Your task to perform on an android device: turn on data saver in the chrome app Image 0: 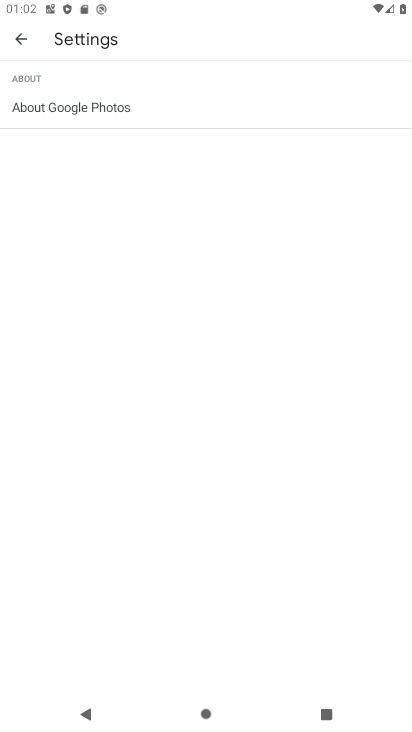
Step 0: press home button
Your task to perform on an android device: turn on data saver in the chrome app Image 1: 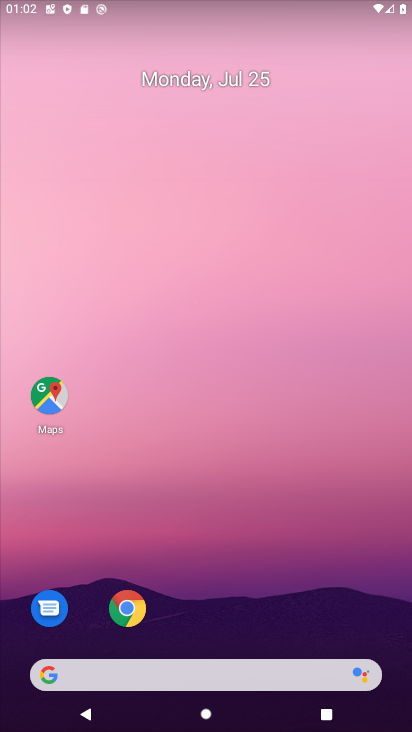
Step 1: click (144, 95)
Your task to perform on an android device: turn on data saver in the chrome app Image 2: 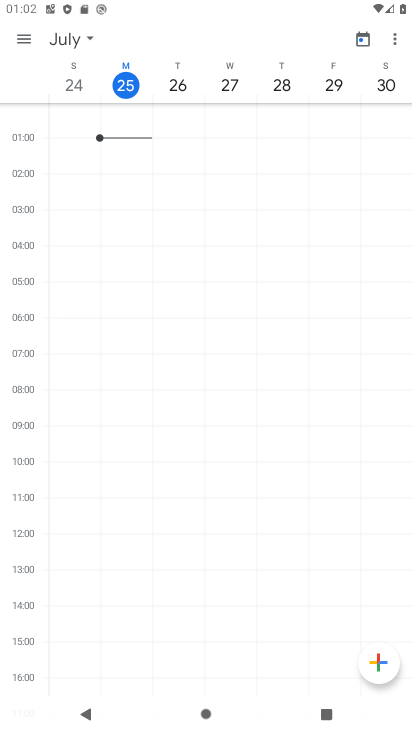
Step 2: press home button
Your task to perform on an android device: turn on data saver in the chrome app Image 3: 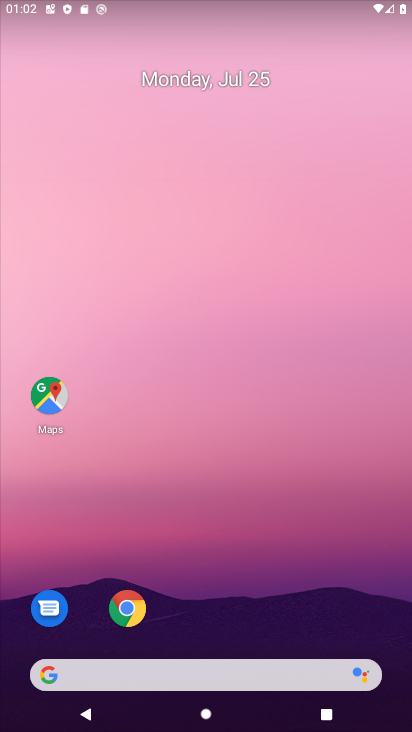
Step 3: drag from (212, 628) to (1, 428)
Your task to perform on an android device: turn on data saver in the chrome app Image 4: 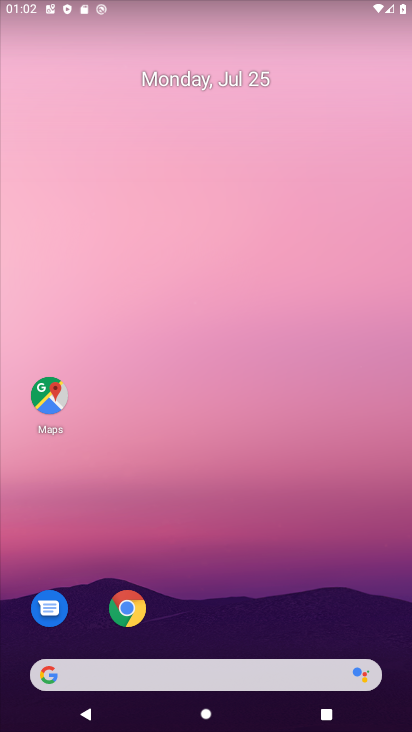
Step 4: click (117, 383)
Your task to perform on an android device: turn on data saver in the chrome app Image 5: 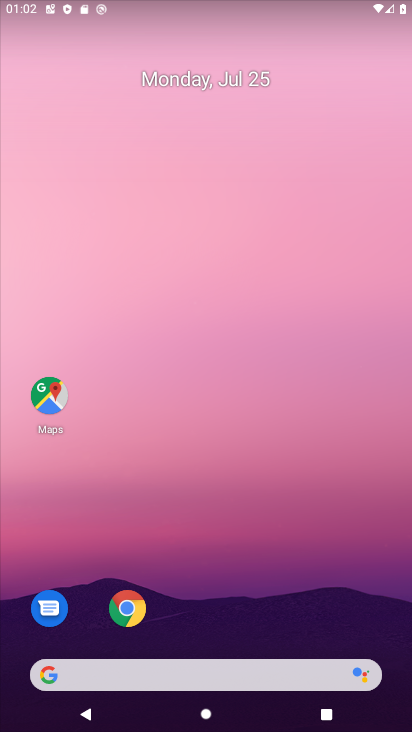
Step 5: drag from (222, 583) to (220, 108)
Your task to perform on an android device: turn on data saver in the chrome app Image 6: 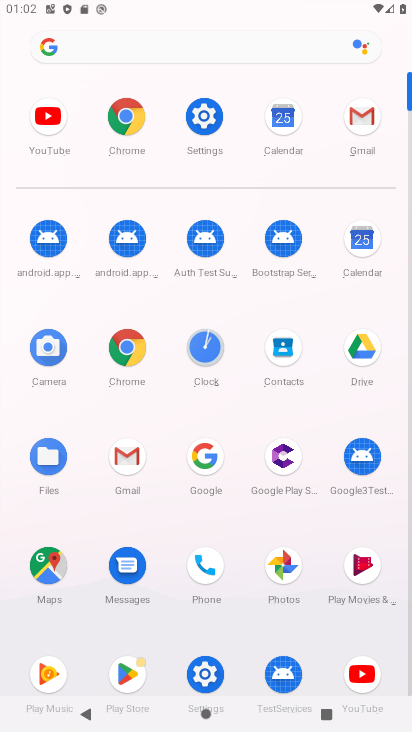
Step 6: click (119, 360)
Your task to perform on an android device: turn on data saver in the chrome app Image 7: 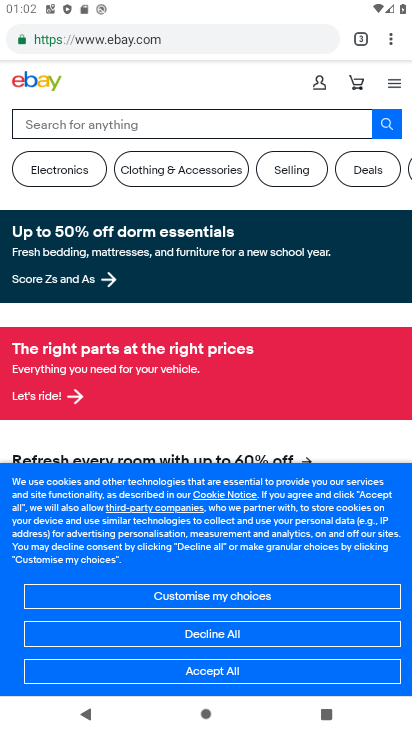
Step 7: click (392, 42)
Your task to perform on an android device: turn on data saver in the chrome app Image 8: 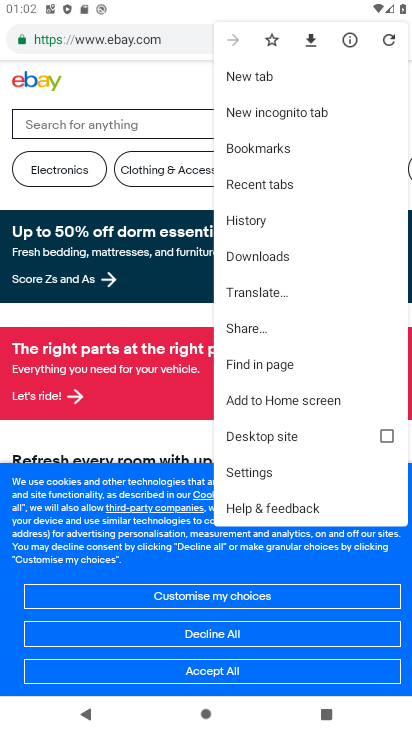
Step 8: click (278, 468)
Your task to perform on an android device: turn on data saver in the chrome app Image 9: 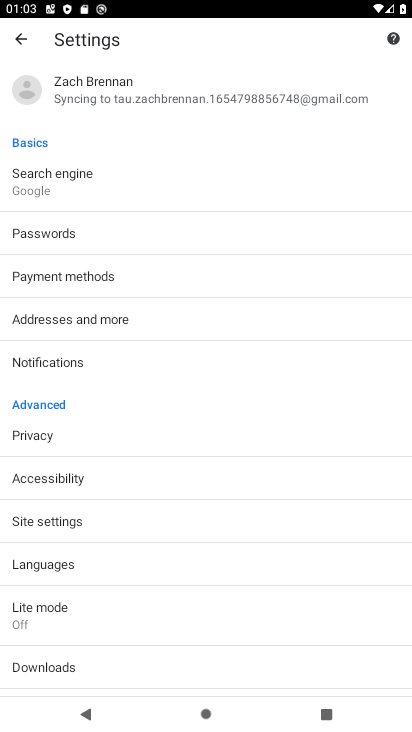
Step 9: drag from (248, 585) to (196, 124)
Your task to perform on an android device: turn on data saver in the chrome app Image 10: 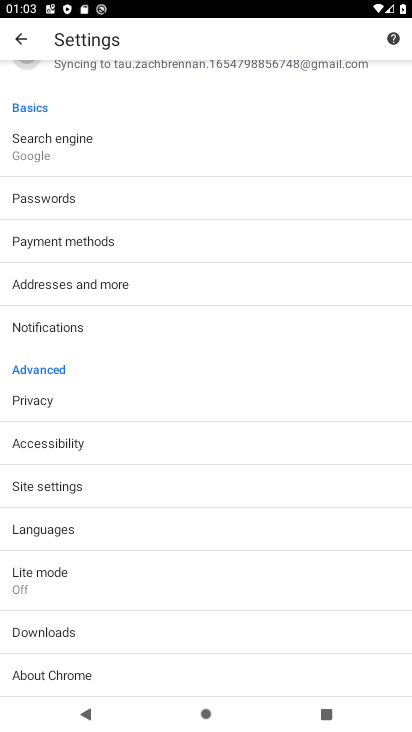
Step 10: click (49, 567)
Your task to perform on an android device: turn on data saver in the chrome app Image 11: 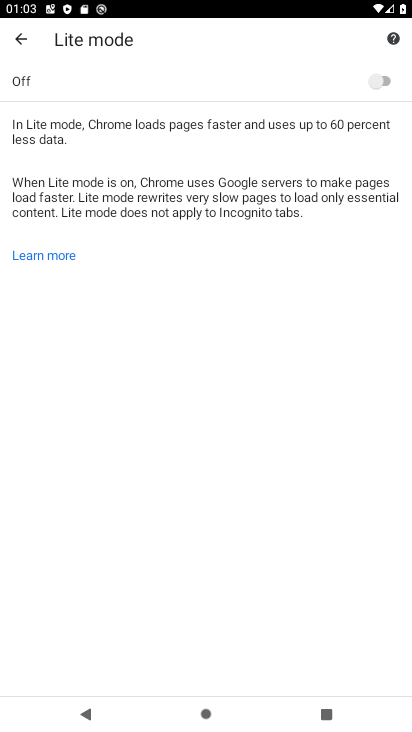
Step 11: click (364, 82)
Your task to perform on an android device: turn on data saver in the chrome app Image 12: 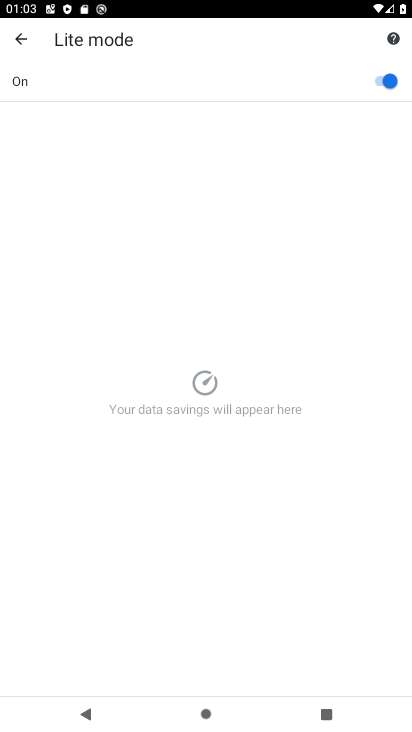
Step 12: task complete